Your task to perform on an android device: turn on javascript in the chrome app Image 0: 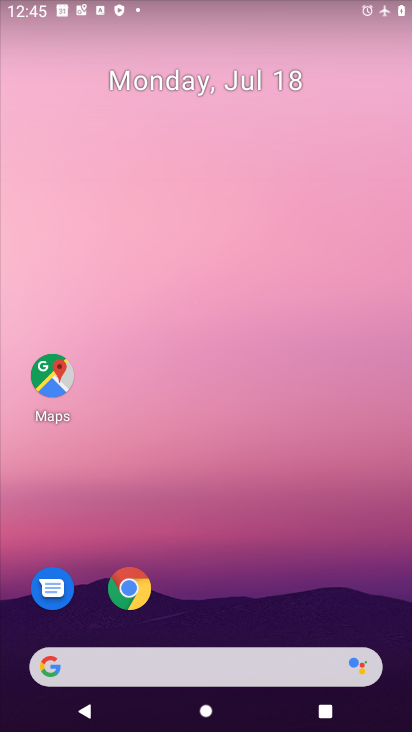
Step 0: drag from (294, 559) to (279, 251)
Your task to perform on an android device: turn on javascript in the chrome app Image 1: 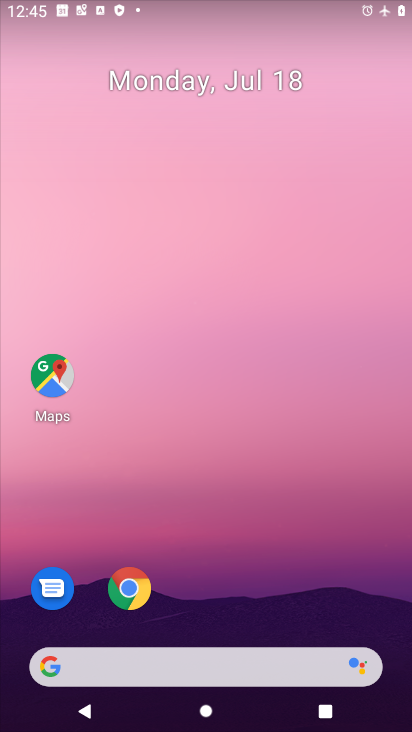
Step 1: drag from (267, 622) to (264, 182)
Your task to perform on an android device: turn on javascript in the chrome app Image 2: 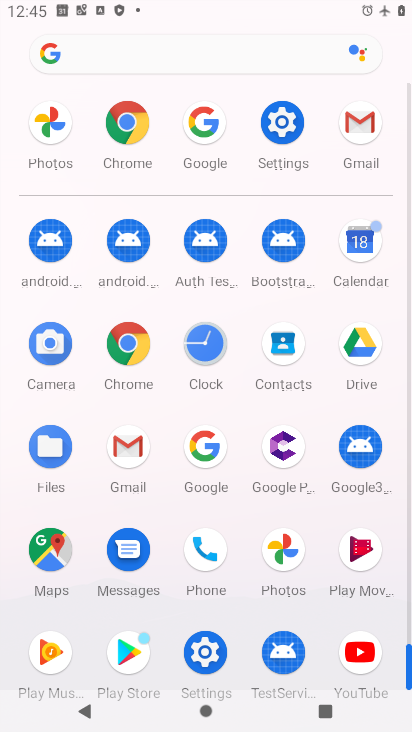
Step 2: click (125, 127)
Your task to perform on an android device: turn on javascript in the chrome app Image 3: 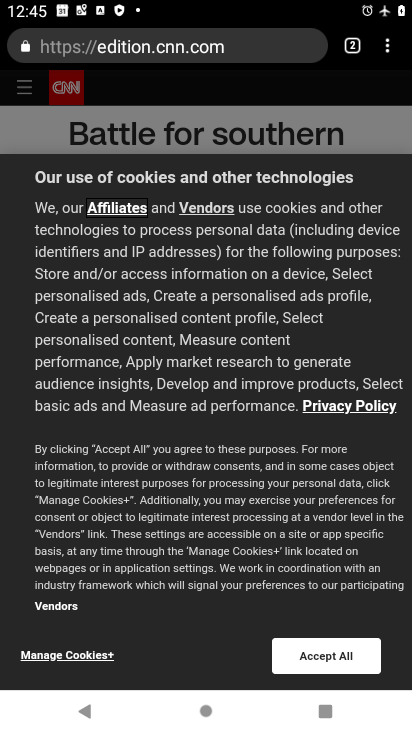
Step 3: click (388, 57)
Your task to perform on an android device: turn on javascript in the chrome app Image 4: 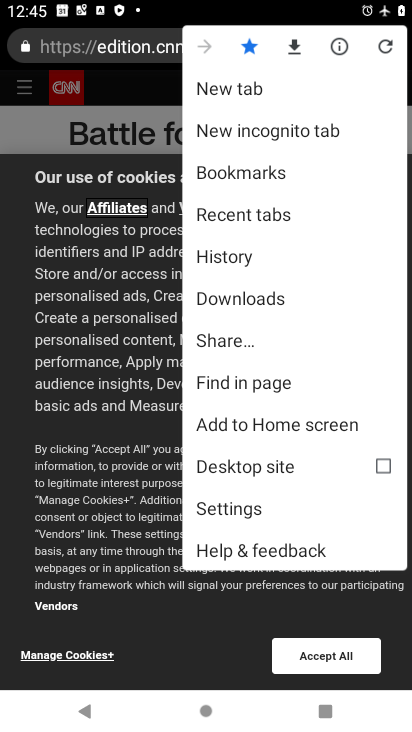
Step 4: click (245, 512)
Your task to perform on an android device: turn on javascript in the chrome app Image 5: 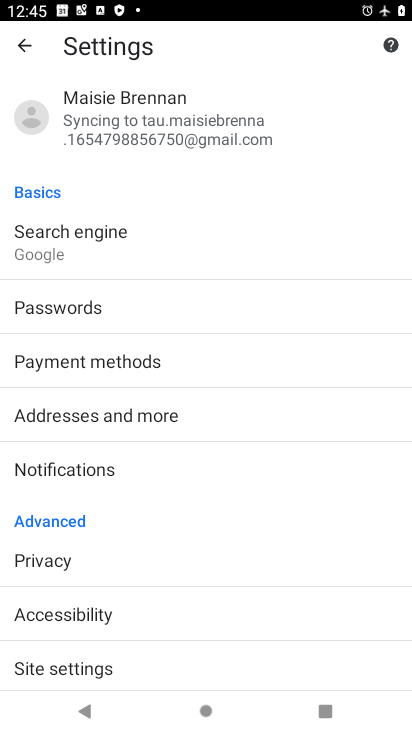
Step 5: click (90, 674)
Your task to perform on an android device: turn on javascript in the chrome app Image 6: 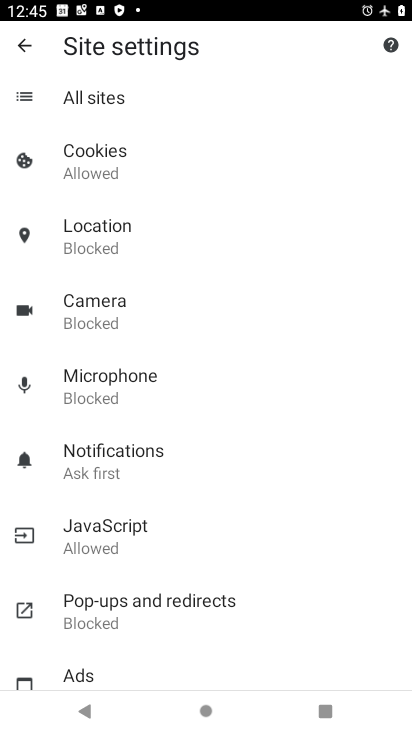
Step 6: click (132, 530)
Your task to perform on an android device: turn on javascript in the chrome app Image 7: 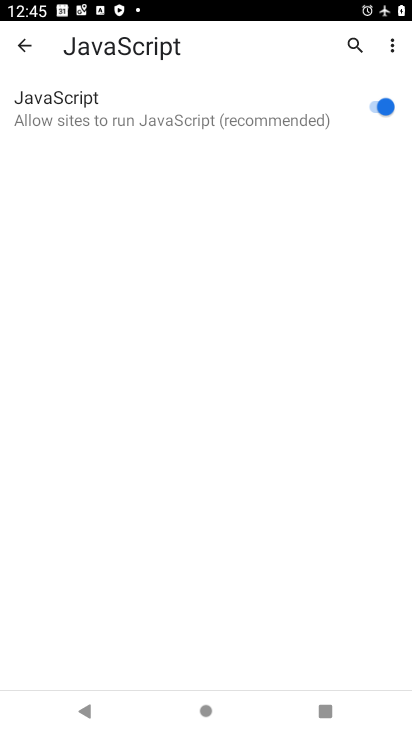
Step 7: task complete